Your task to perform on an android device: Search for "usb-c" on newegg.com, select the first entry, and add it to the cart. Image 0: 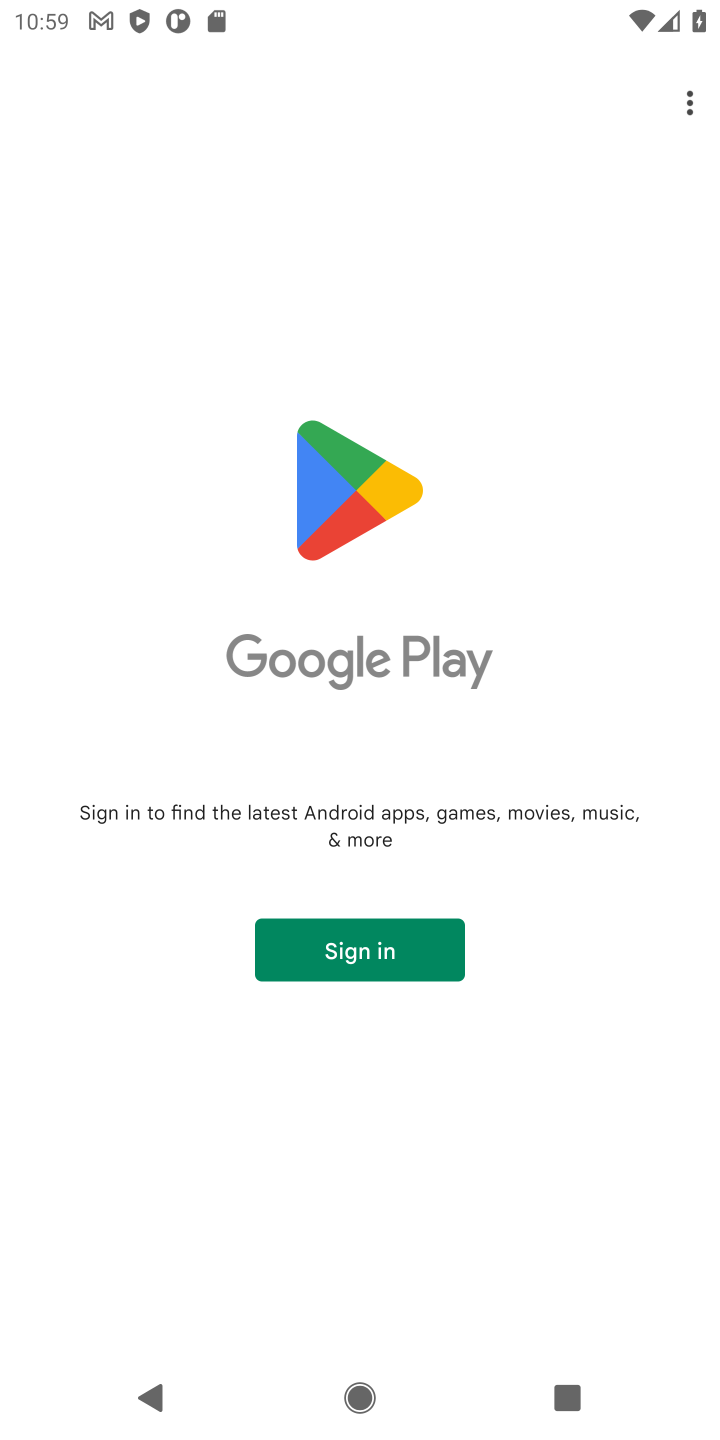
Step 0: press home button
Your task to perform on an android device: Search for "usb-c" on newegg.com, select the first entry, and add it to the cart. Image 1: 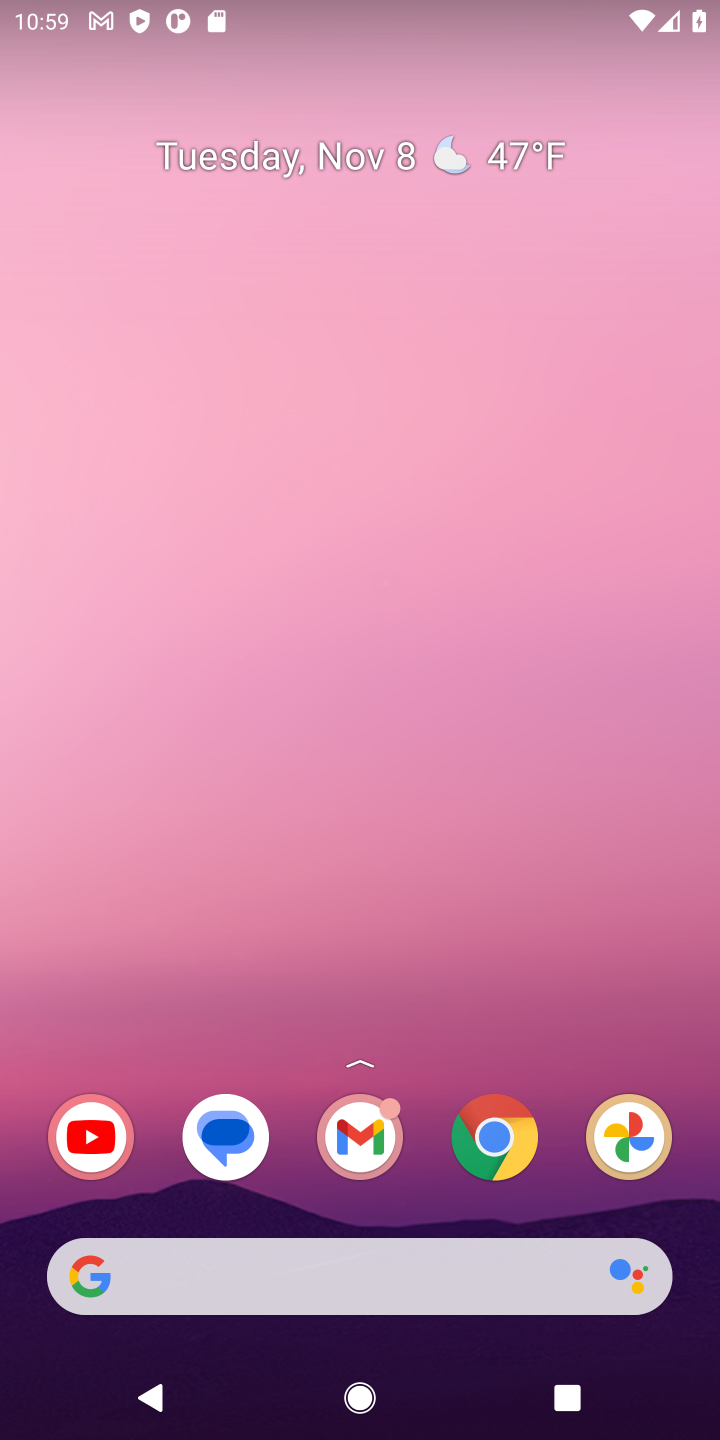
Step 1: click (486, 1130)
Your task to perform on an android device: Search for "usb-c" on newegg.com, select the first entry, and add it to the cart. Image 2: 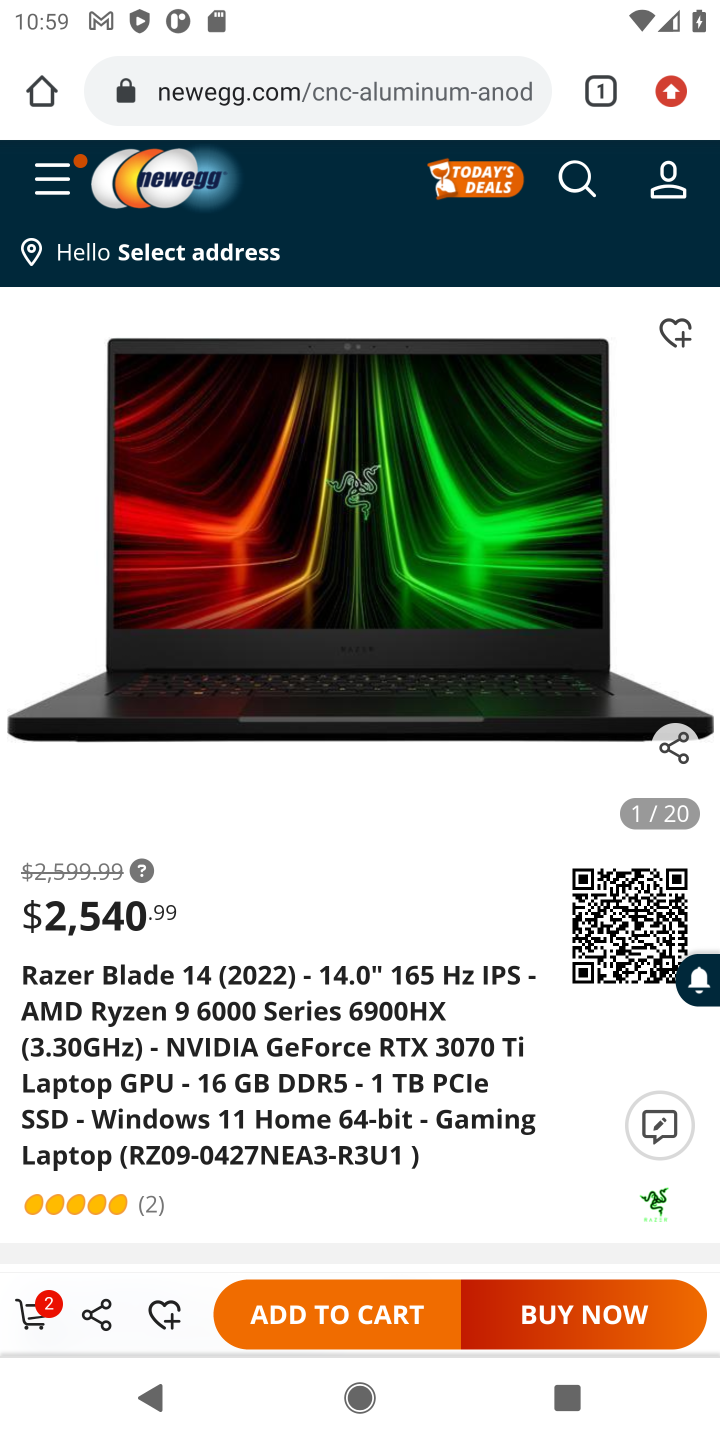
Step 2: click (252, 86)
Your task to perform on an android device: Search for "usb-c" on newegg.com, select the first entry, and add it to the cart. Image 3: 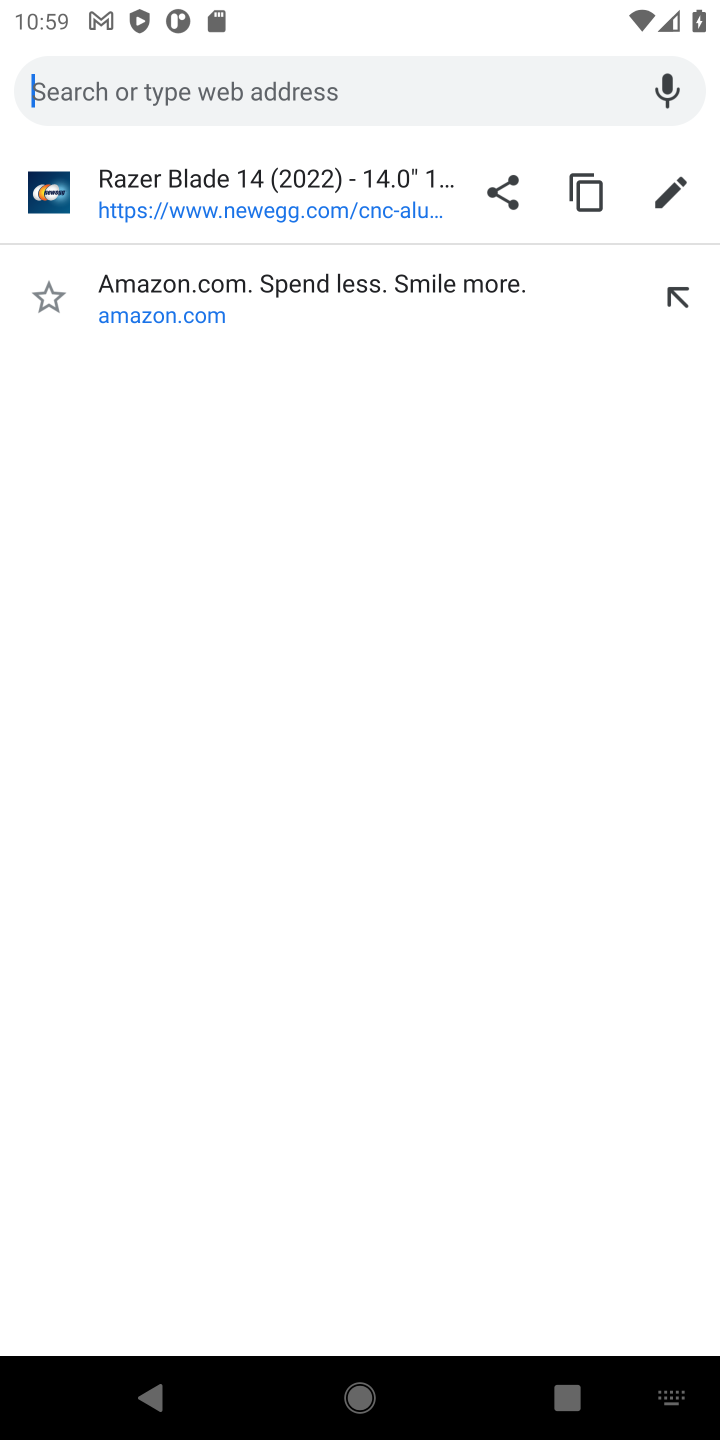
Step 3: type "newegg.com"
Your task to perform on an android device: Search for "usb-c" on newegg.com, select the first entry, and add it to the cart. Image 4: 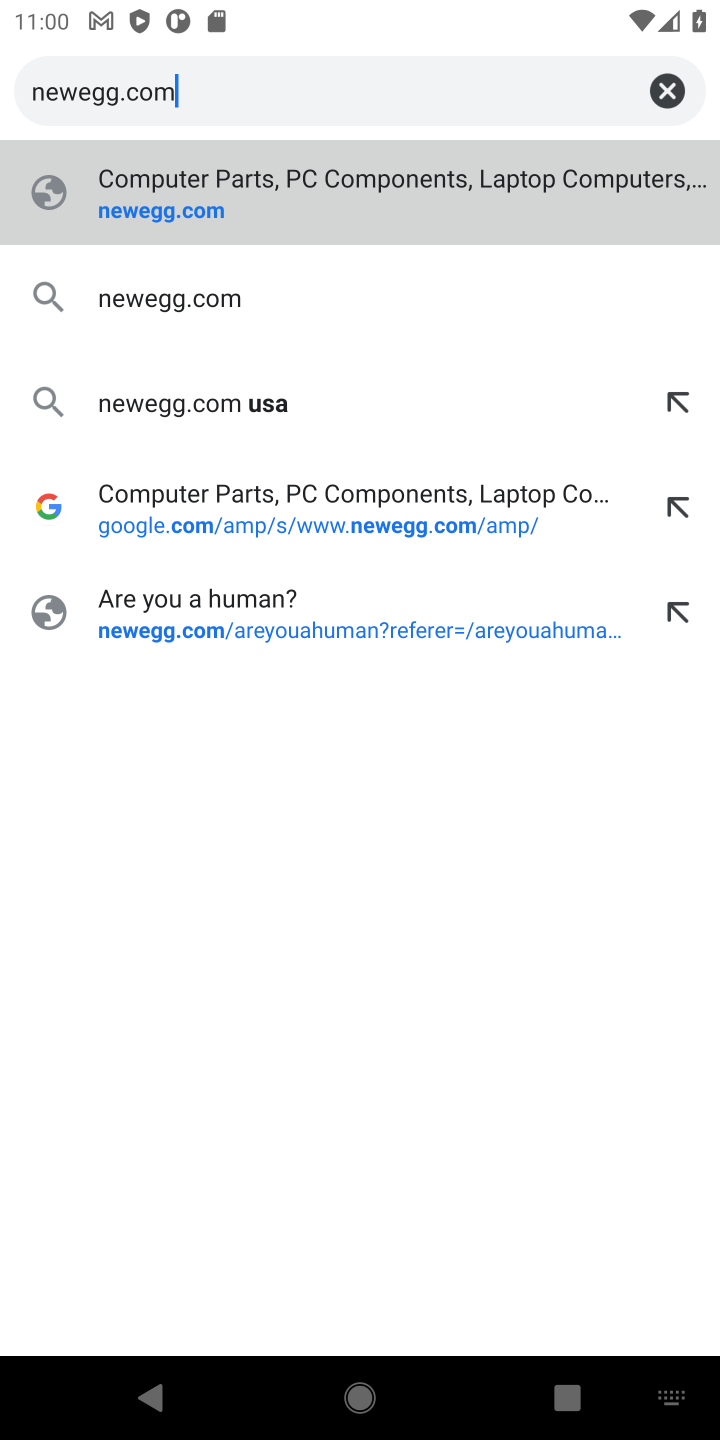
Step 4: click (173, 300)
Your task to perform on an android device: Search for "usb-c" on newegg.com, select the first entry, and add it to the cart. Image 5: 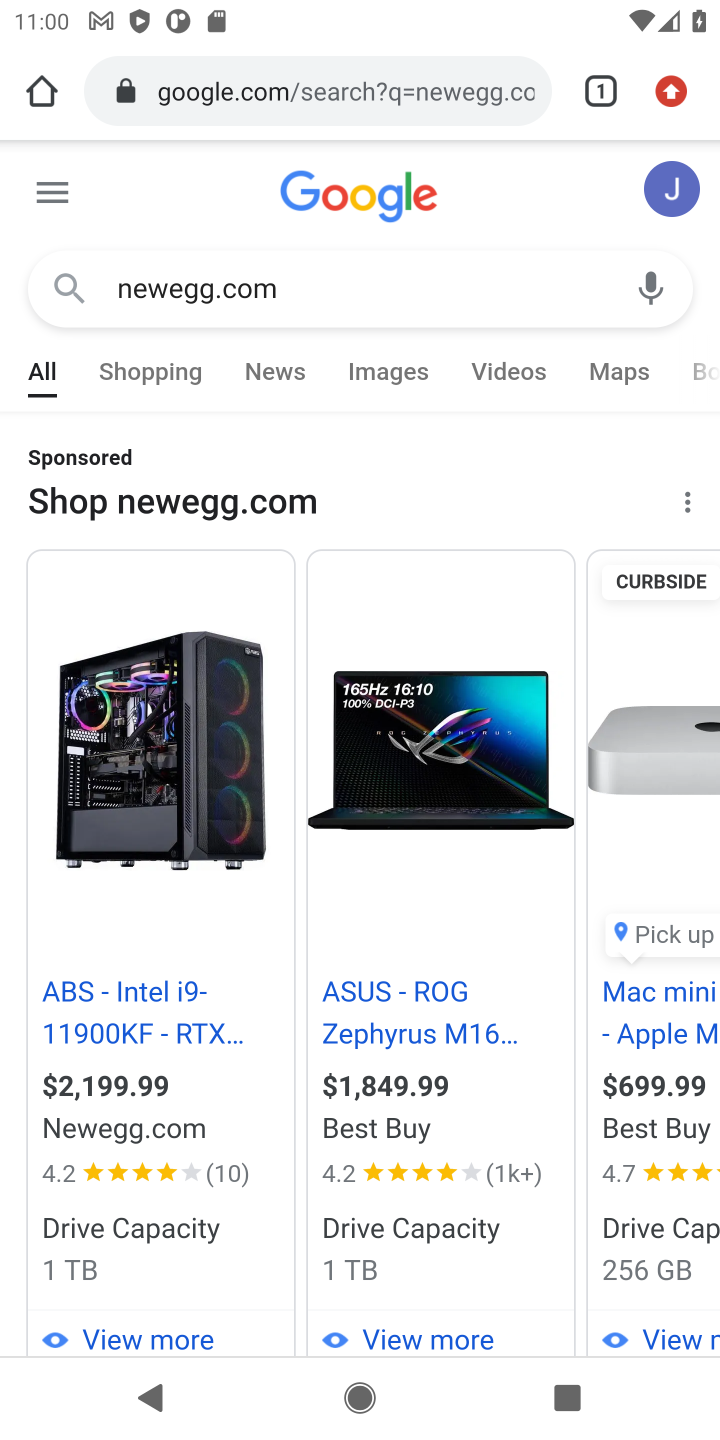
Step 5: drag from (421, 1305) to (530, 569)
Your task to perform on an android device: Search for "usb-c" on newegg.com, select the first entry, and add it to the cart. Image 6: 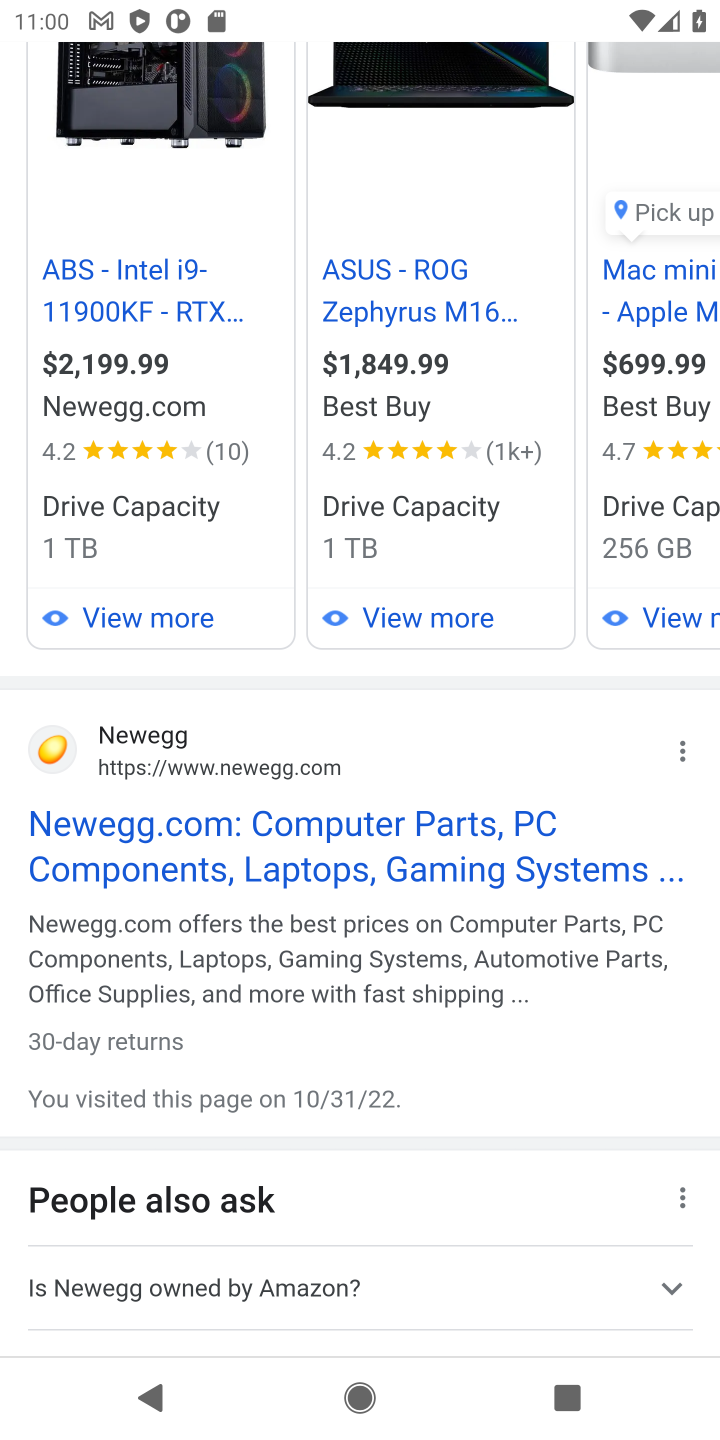
Step 6: click (383, 856)
Your task to perform on an android device: Search for "usb-c" on newegg.com, select the first entry, and add it to the cart. Image 7: 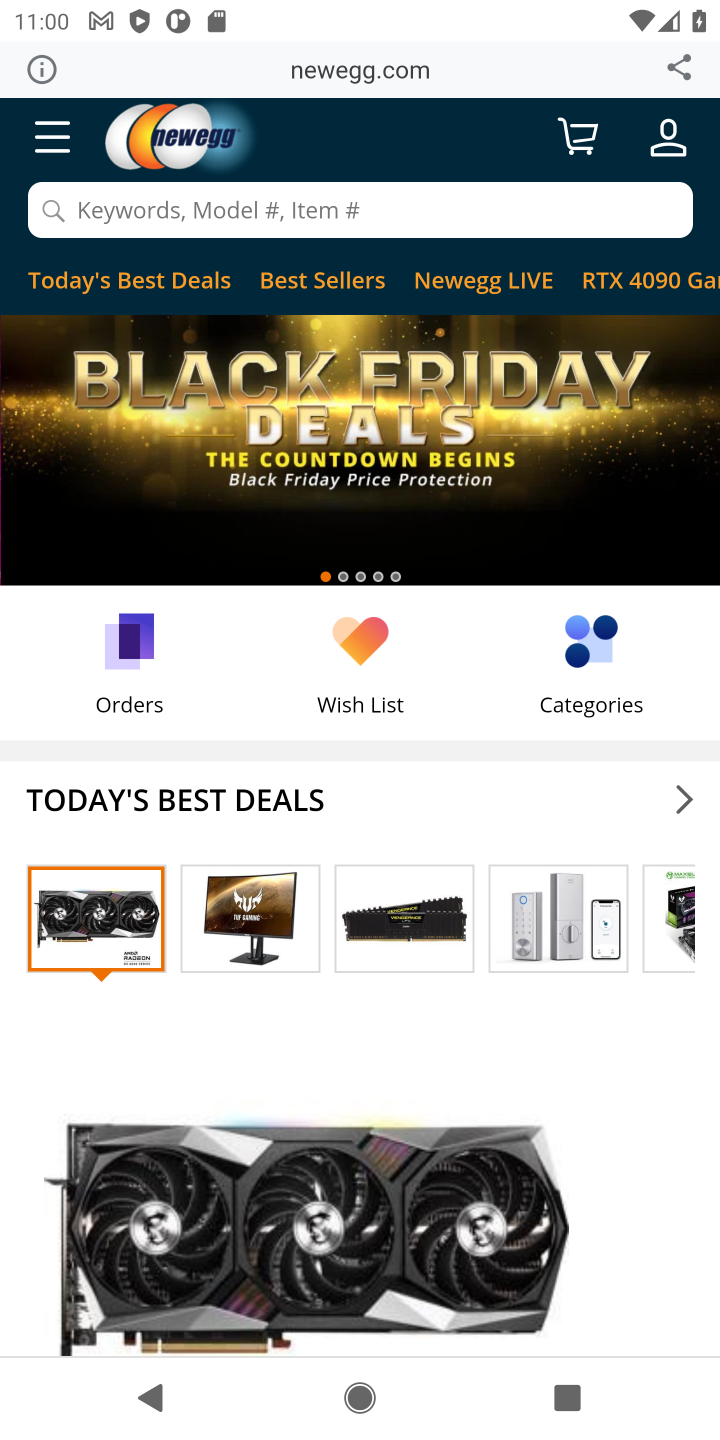
Step 7: click (452, 211)
Your task to perform on an android device: Search for "usb-c" on newegg.com, select the first entry, and add it to the cart. Image 8: 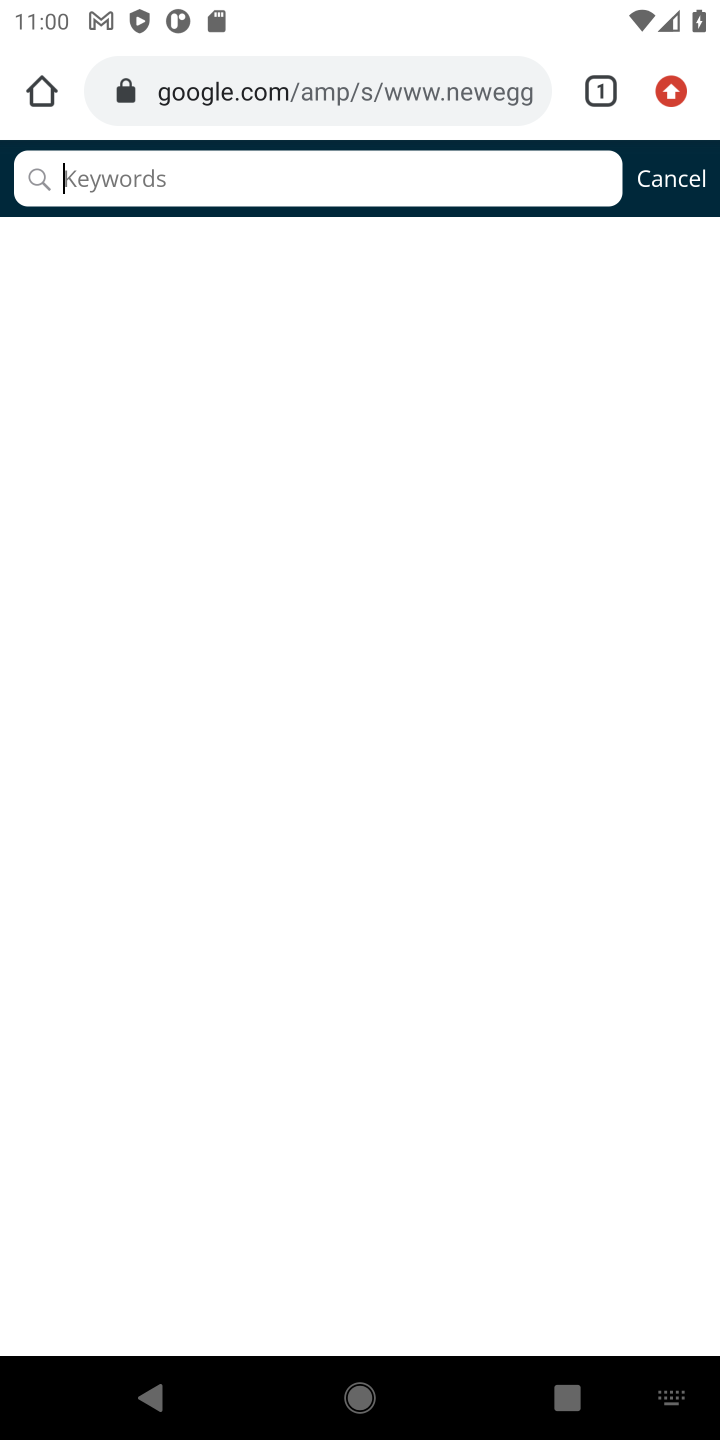
Step 8: type "usb-c"
Your task to perform on an android device: Search for "usb-c" on newegg.com, select the first entry, and add it to the cart. Image 9: 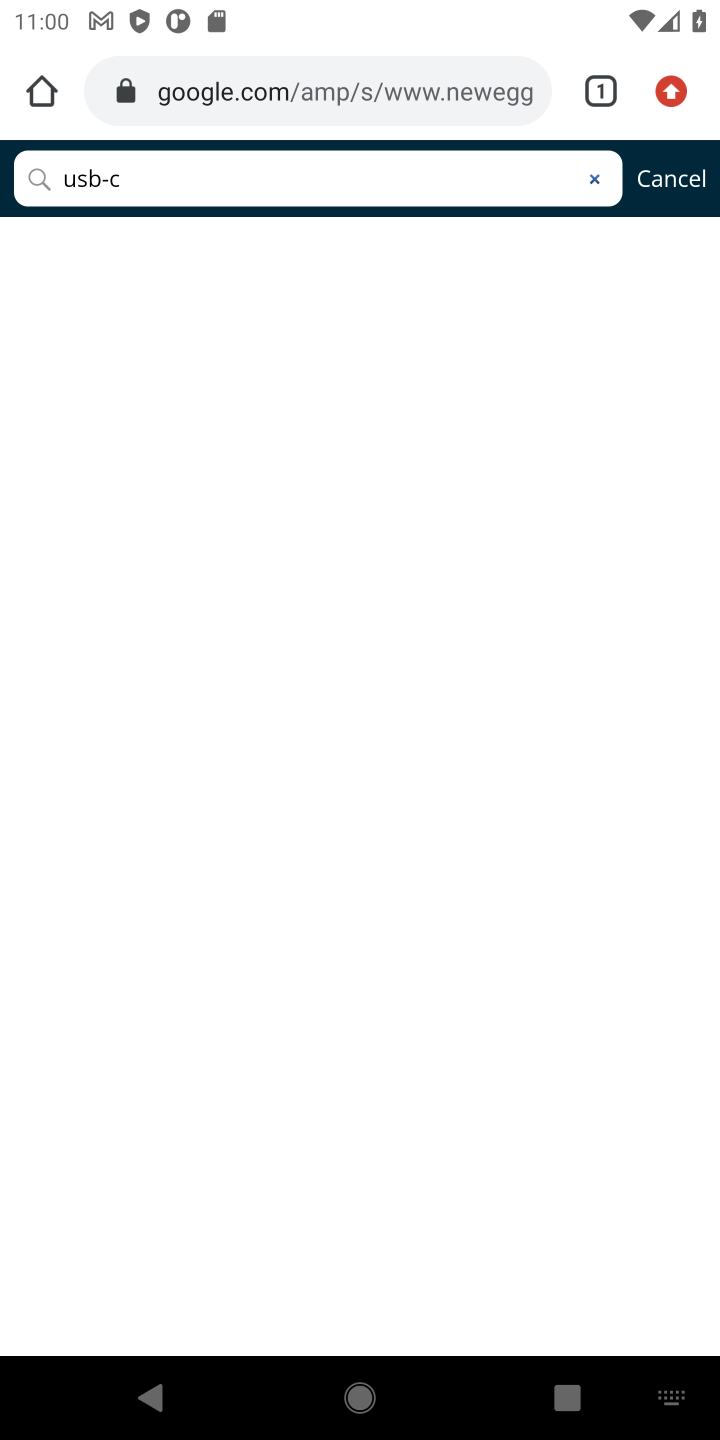
Step 9: task complete